Your task to perform on an android device: change notification settings in the gmail app Image 0: 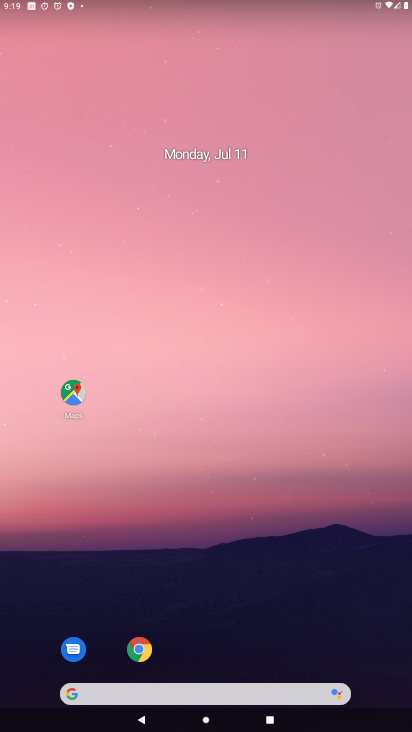
Step 0: drag from (215, 697) to (247, 128)
Your task to perform on an android device: change notification settings in the gmail app Image 1: 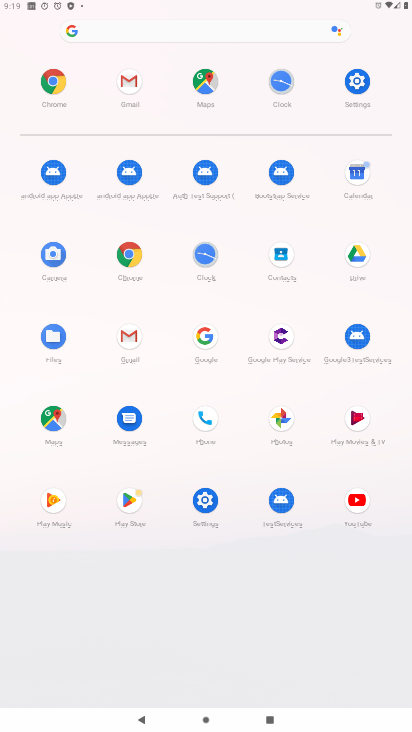
Step 1: click (129, 80)
Your task to perform on an android device: change notification settings in the gmail app Image 2: 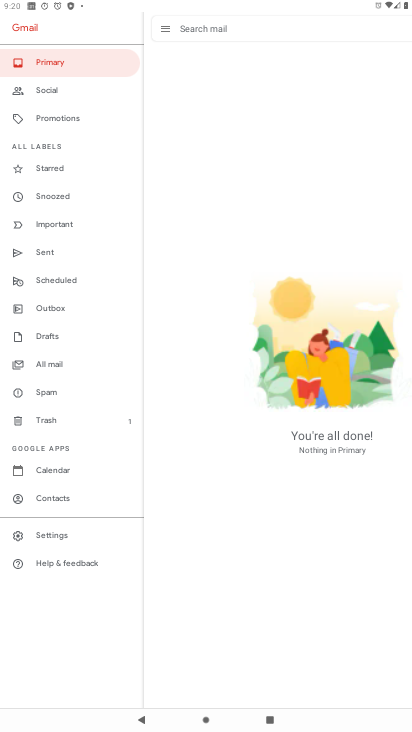
Step 2: click (47, 529)
Your task to perform on an android device: change notification settings in the gmail app Image 3: 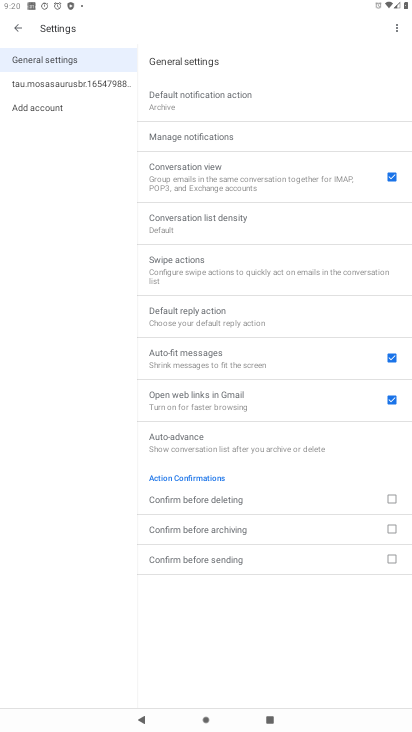
Step 3: click (194, 140)
Your task to perform on an android device: change notification settings in the gmail app Image 4: 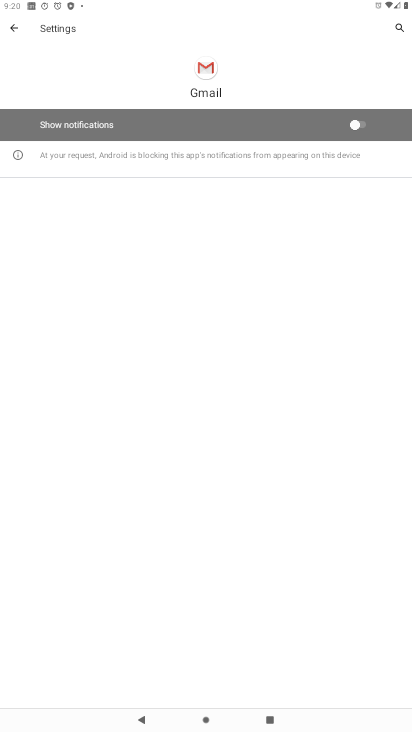
Step 4: click (357, 121)
Your task to perform on an android device: change notification settings in the gmail app Image 5: 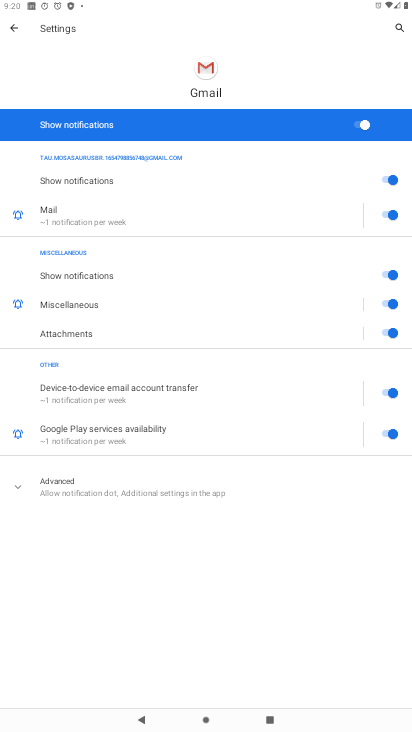
Step 5: task complete